Your task to perform on an android device: When is my next appointment? Image 0: 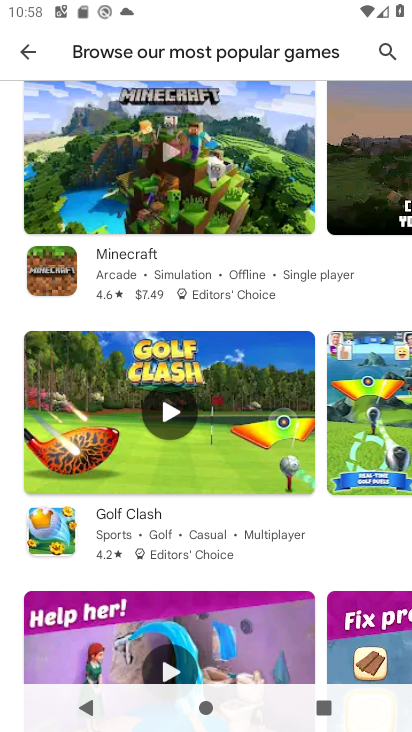
Step 0: press back button
Your task to perform on an android device: When is my next appointment? Image 1: 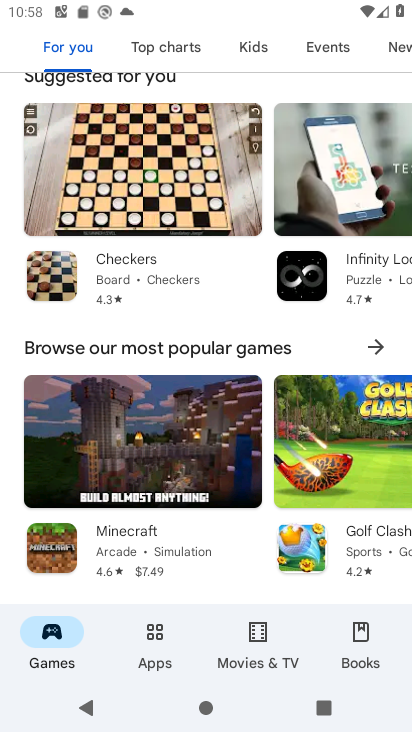
Step 1: press back button
Your task to perform on an android device: When is my next appointment? Image 2: 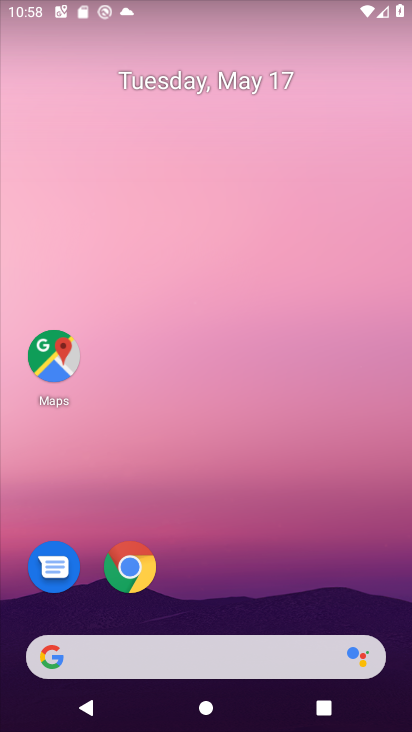
Step 2: drag from (174, 577) to (259, 78)
Your task to perform on an android device: When is my next appointment? Image 3: 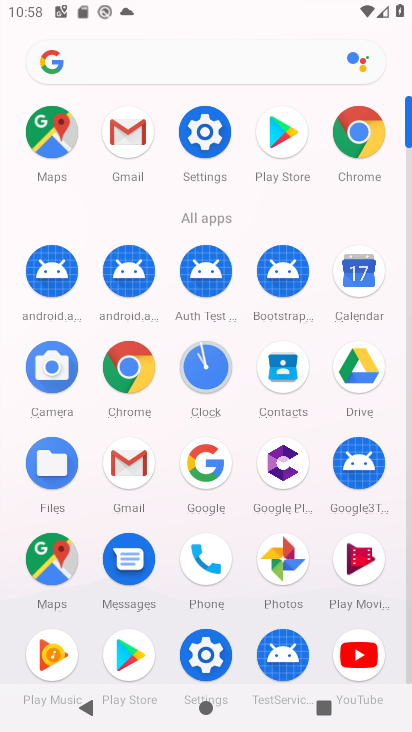
Step 3: click (353, 273)
Your task to perform on an android device: When is my next appointment? Image 4: 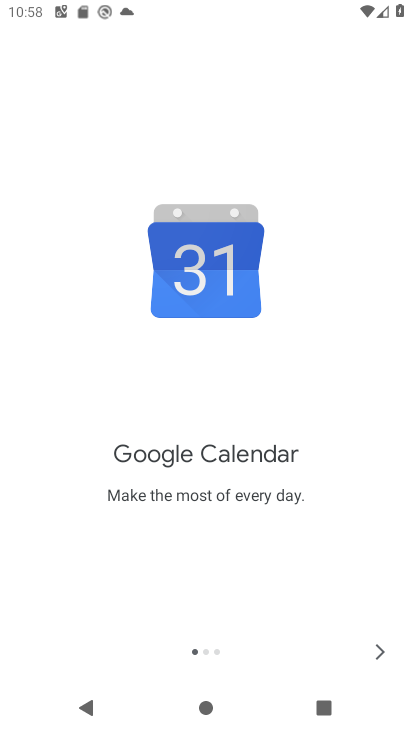
Step 4: click (358, 645)
Your task to perform on an android device: When is my next appointment? Image 5: 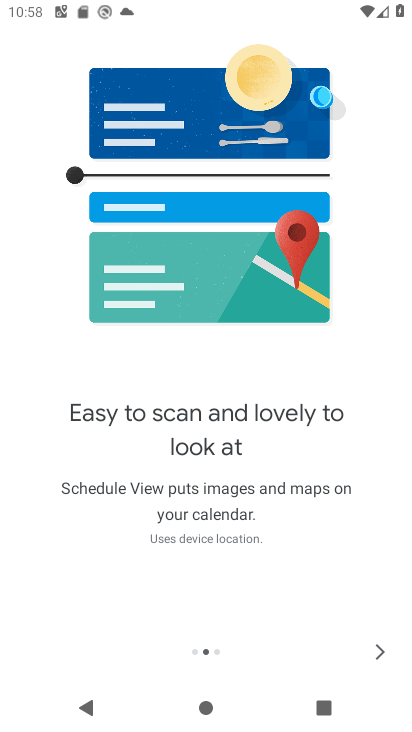
Step 5: click (369, 638)
Your task to perform on an android device: When is my next appointment? Image 6: 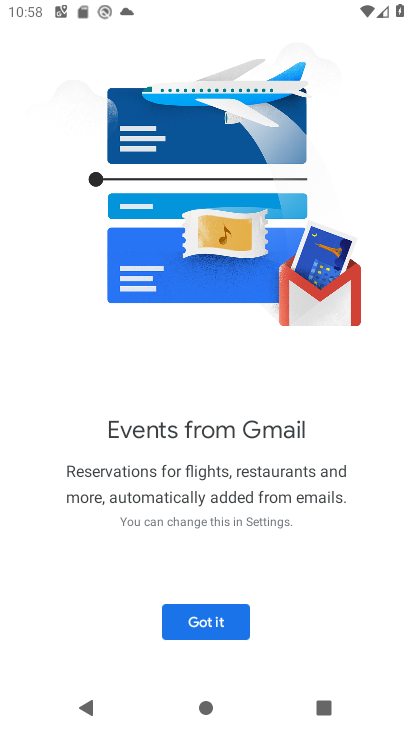
Step 6: click (202, 610)
Your task to perform on an android device: When is my next appointment? Image 7: 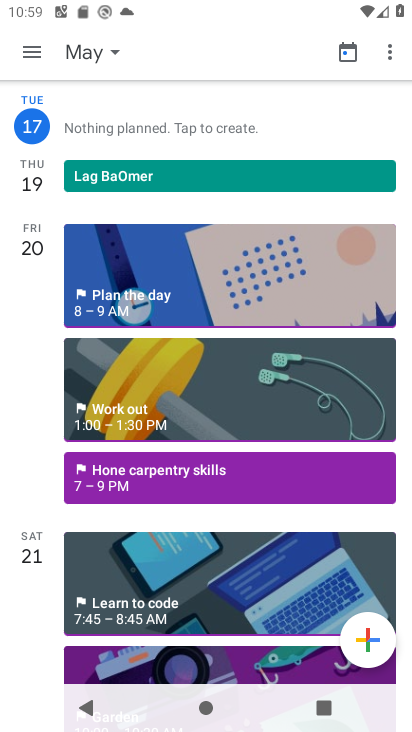
Step 7: task complete